Your task to perform on an android device: Go to Wikipedia Image 0: 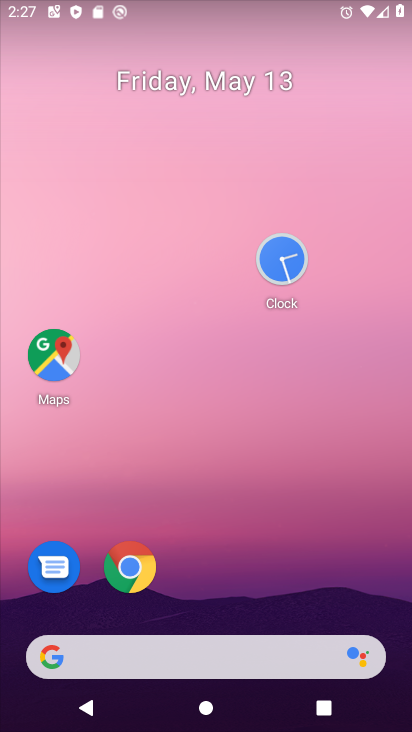
Step 0: click (234, 653)
Your task to perform on an android device: Go to Wikipedia Image 1: 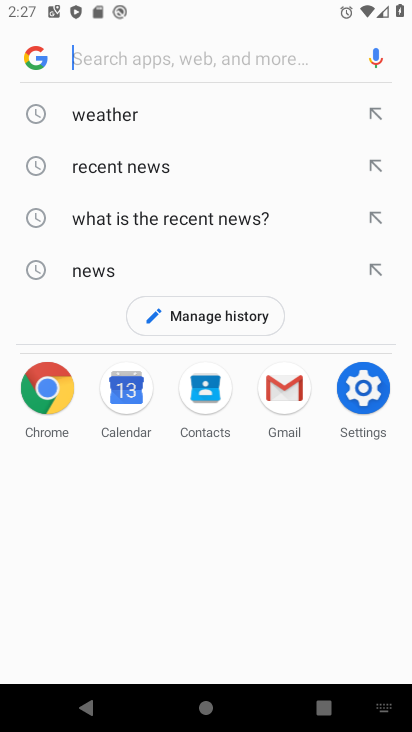
Step 1: type "wikipedia"
Your task to perform on an android device: Go to Wikipedia Image 2: 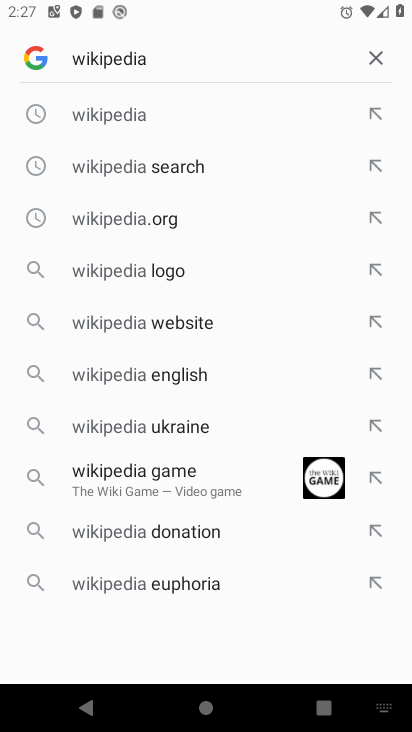
Step 2: click (163, 137)
Your task to perform on an android device: Go to Wikipedia Image 3: 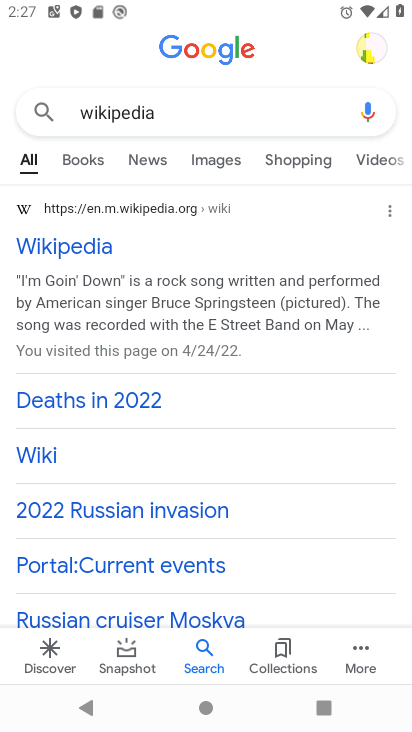
Step 3: task complete